Your task to perform on an android device: change text size in settings app Image 0: 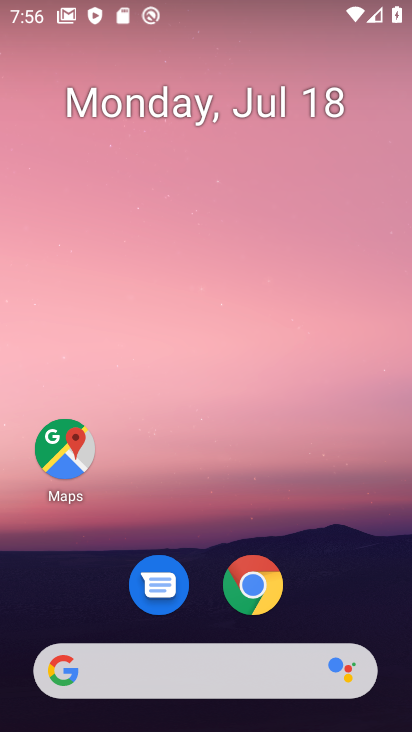
Step 0: drag from (198, 687) to (314, 118)
Your task to perform on an android device: change text size in settings app Image 1: 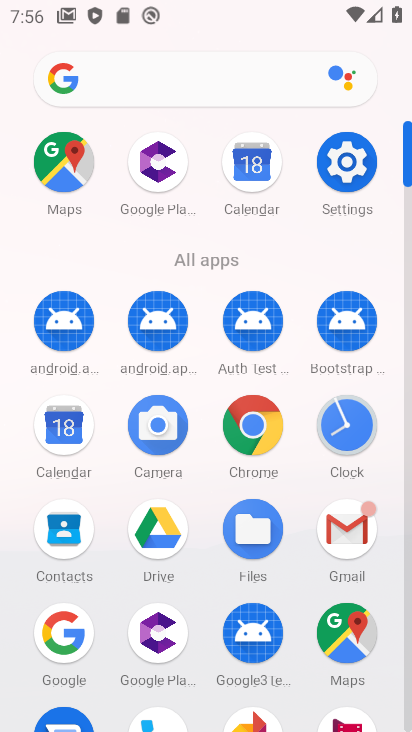
Step 1: click (357, 175)
Your task to perform on an android device: change text size in settings app Image 2: 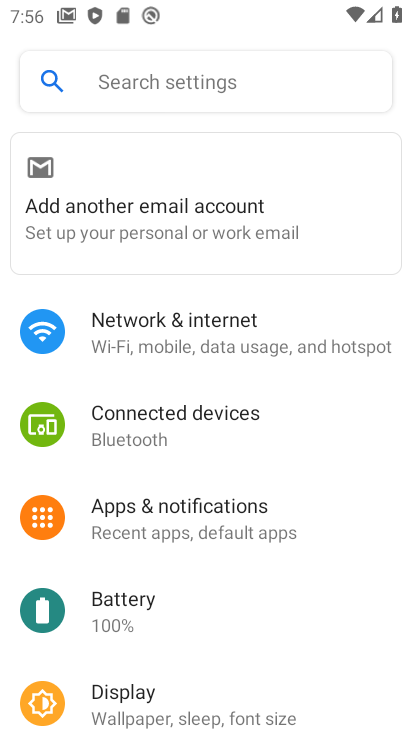
Step 2: drag from (205, 651) to (308, 149)
Your task to perform on an android device: change text size in settings app Image 3: 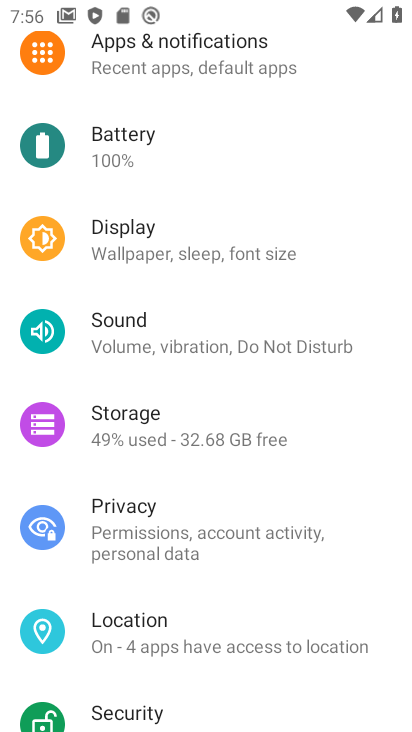
Step 3: click (125, 240)
Your task to perform on an android device: change text size in settings app Image 4: 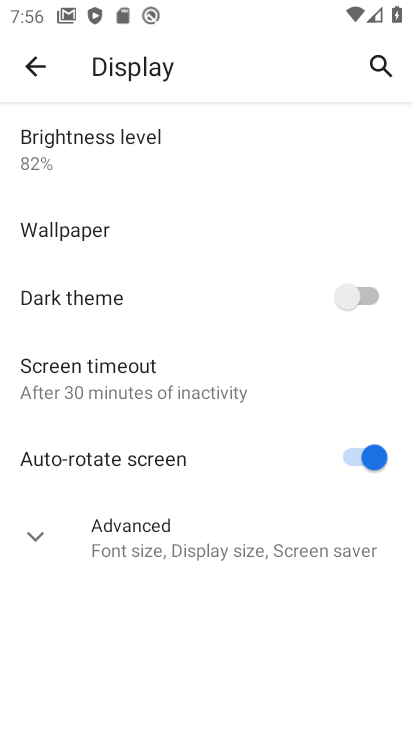
Step 4: click (111, 533)
Your task to perform on an android device: change text size in settings app Image 5: 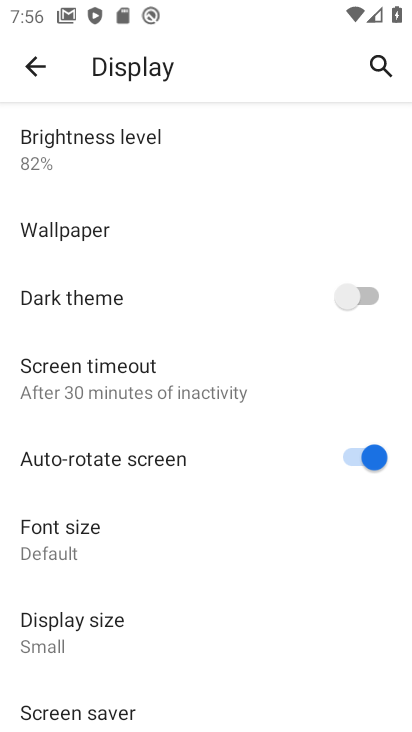
Step 5: click (52, 538)
Your task to perform on an android device: change text size in settings app Image 6: 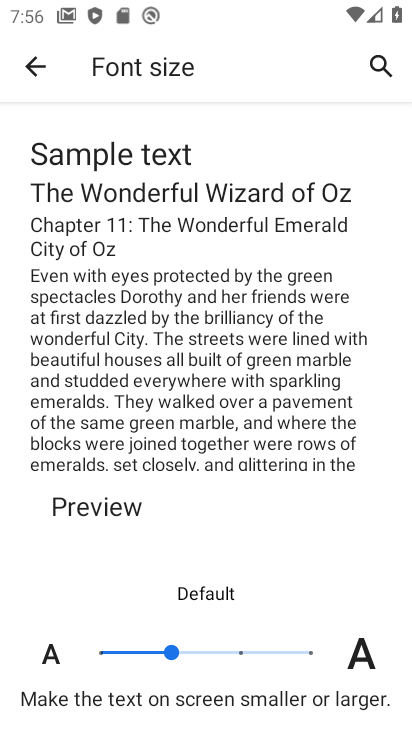
Step 6: click (98, 657)
Your task to perform on an android device: change text size in settings app Image 7: 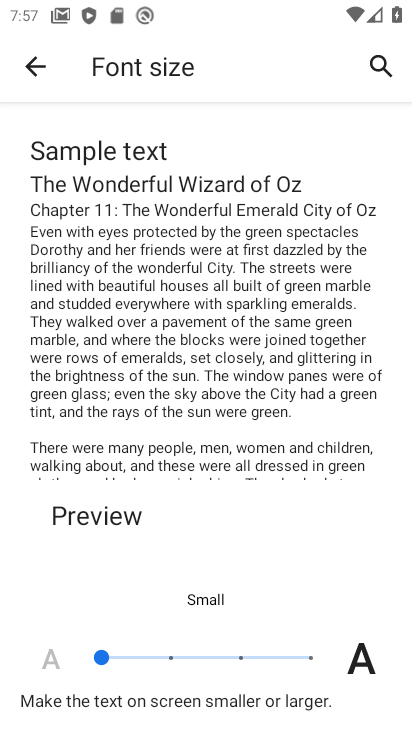
Step 7: task complete